Your task to perform on an android device: toggle pop-ups in chrome Image 0: 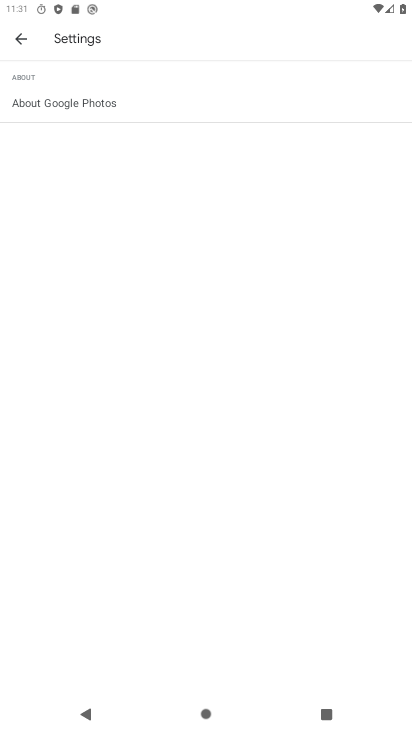
Step 0: press home button
Your task to perform on an android device: toggle pop-ups in chrome Image 1: 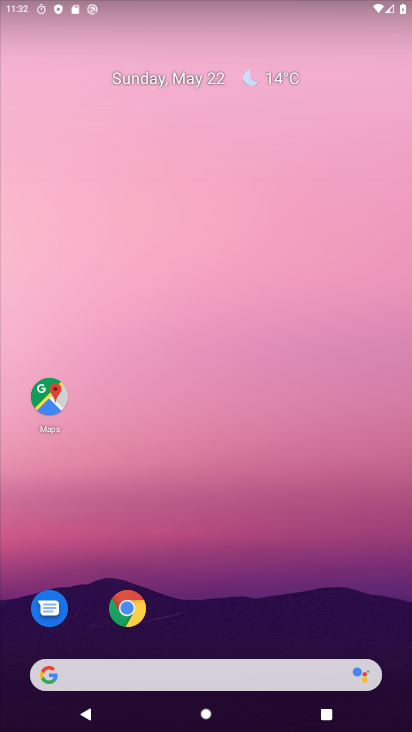
Step 1: drag from (237, 620) to (193, 118)
Your task to perform on an android device: toggle pop-ups in chrome Image 2: 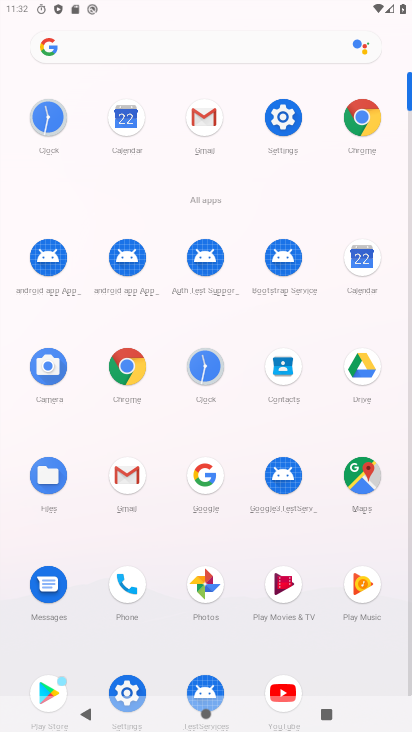
Step 2: click (368, 123)
Your task to perform on an android device: toggle pop-ups in chrome Image 3: 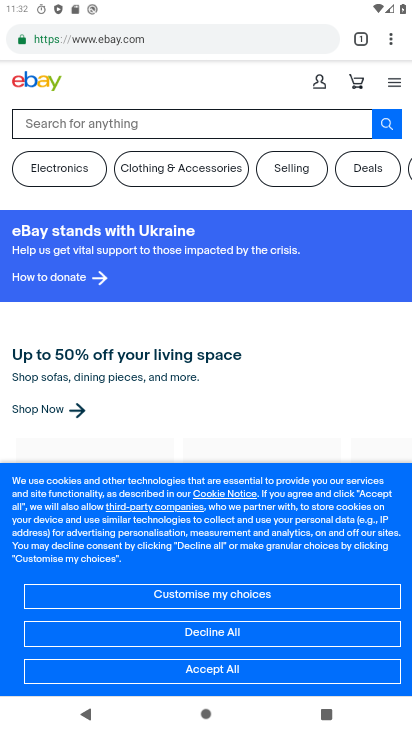
Step 3: click (397, 38)
Your task to perform on an android device: toggle pop-ups in chrome Image 4: 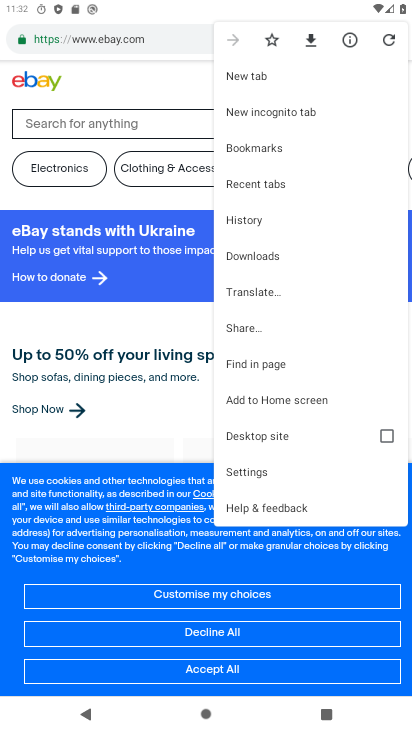
Step 4: click (301, 479)
Your task to perform on an android device: toggle pop-ups in chrome Image 5: 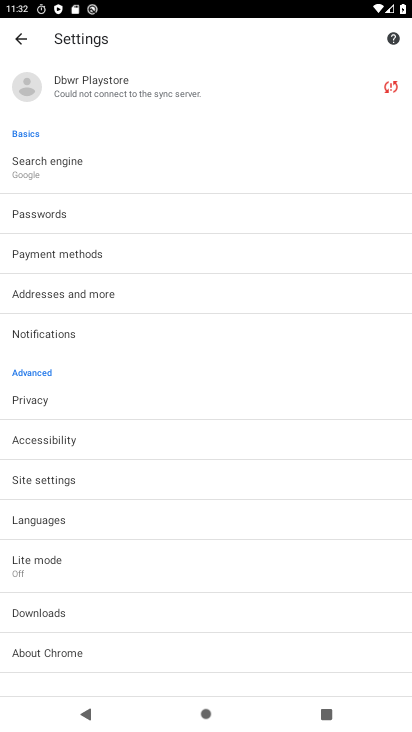
Step 5: click (249, 477)
Your task to perform on an android device: toggle pop-ups in chrome Image 6: 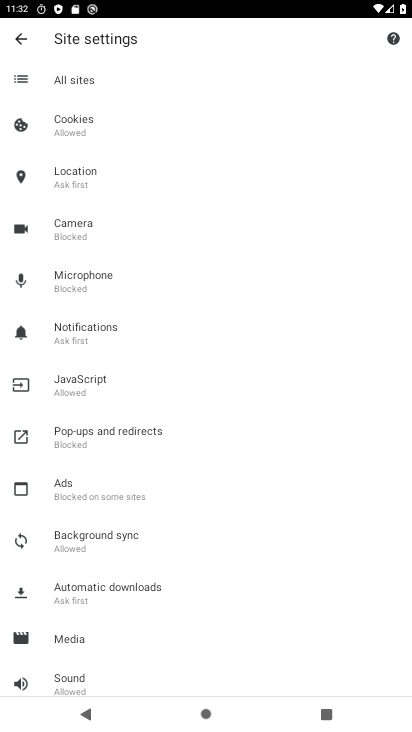
Step 6: click (214, 439)
Your task to perform on an android device: toggle pop-ups in chrome Image 7: 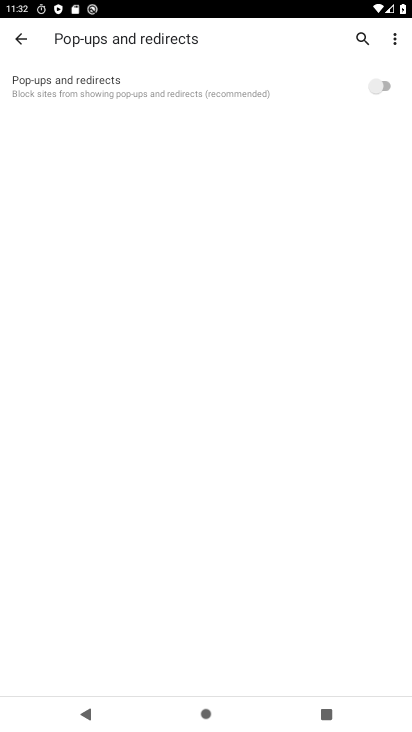
Step 7: click (369, 93)
Your task to perform on an android device: toggle pop-ups in chrome Image 8: 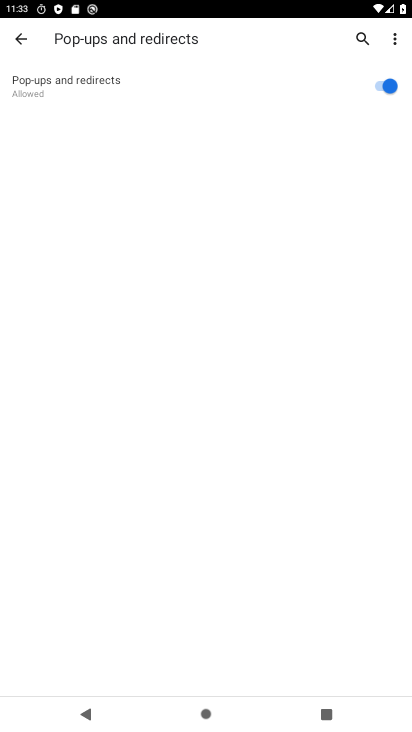
Step 8: task complete